Your task to perform on an android device: Check the weather Image 0: 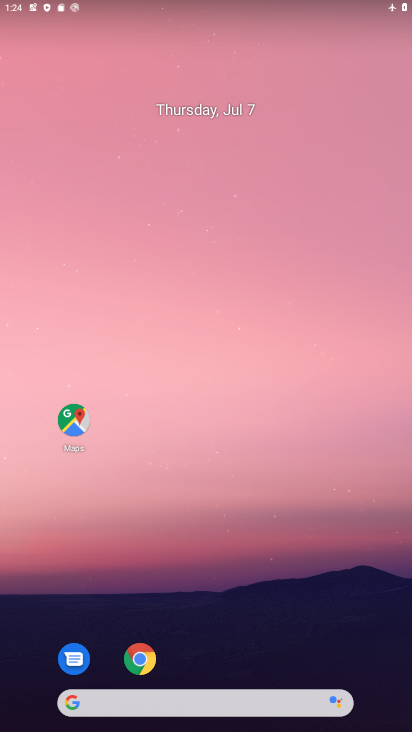
Step 0: press home button
Your task to perform on an android device: Check the weather Image 1: 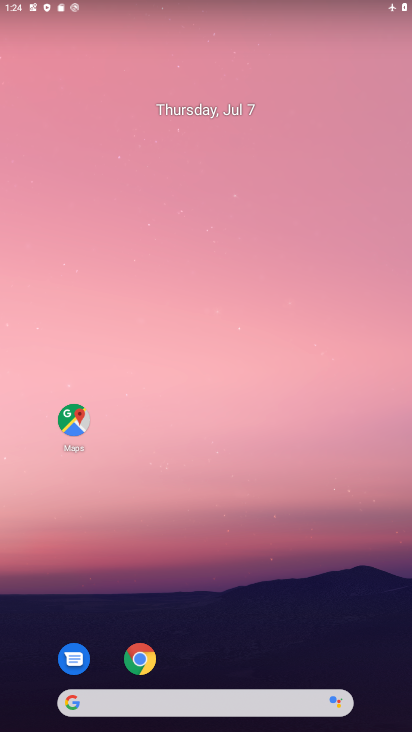
Step 1: click (194, 691)
Your task to perform on an android device: Check the weather Image 2: 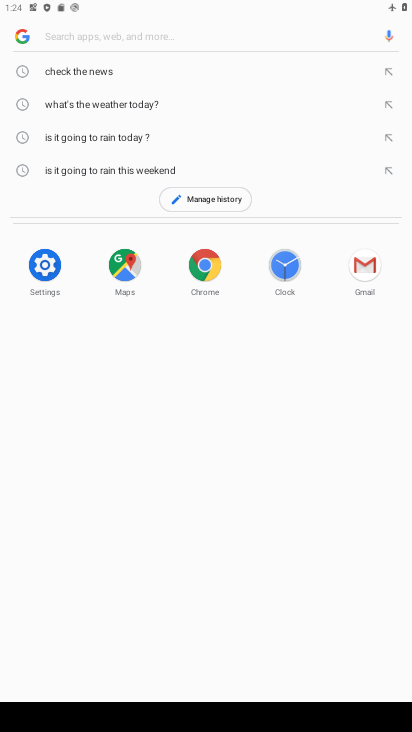
Step 2: type "weather"
Your task to perform on an android device: Check the weather Image 3: 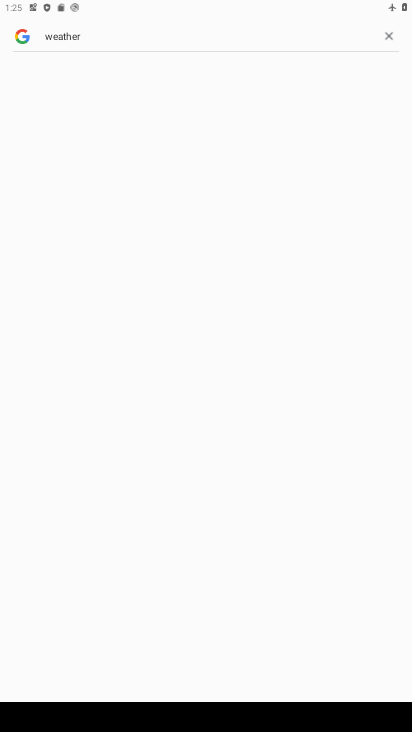
Step 3: task complete